Your task to perform on an android device: toggle pop-ups in chrome Image 0: 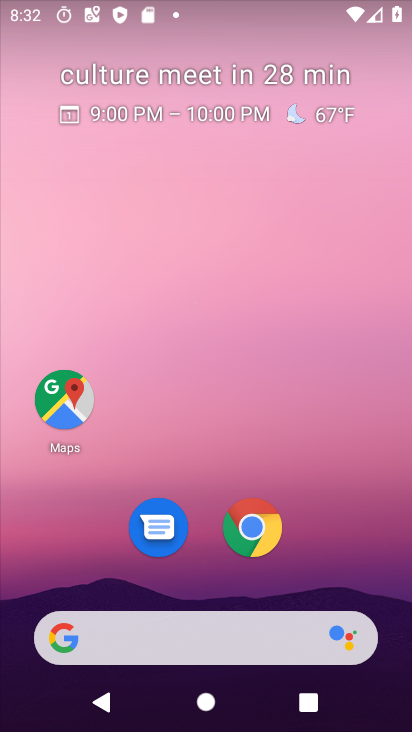
Step 0: click (252, 531)
Your task to perform on an android device: toggle pop-ups in chrome Image 1: 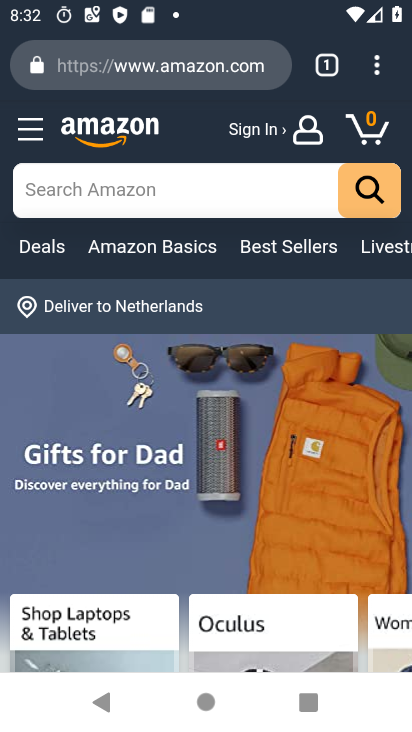
Step 1: click (379, 74)
Your task to perform on an android device: toggle pop-ups in chrome Image 2: 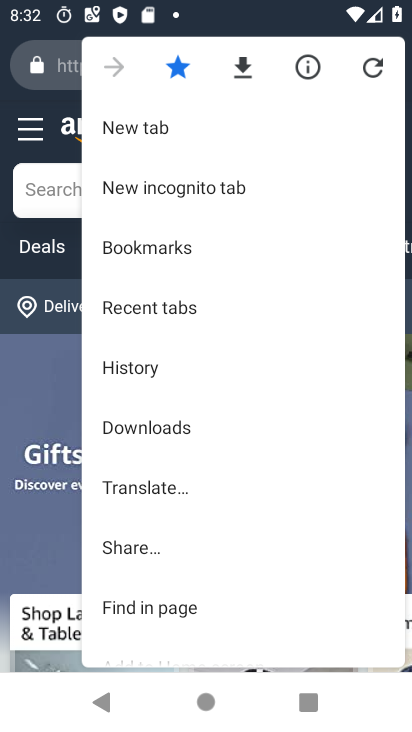
Step 2: drag from (159, 627) to (175, 274)
Your task to perform on an android device: toggle pop-ups in chrome Image 3: 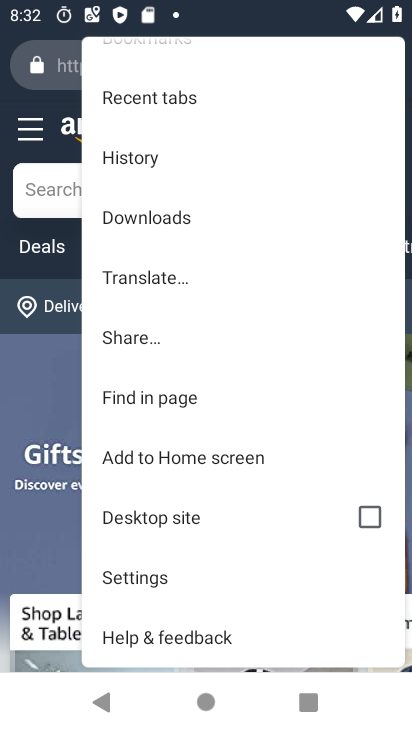
Step 3: click (137, 575)
Your task to perform on an android device: toggle pop-ups in chrome Image 4: 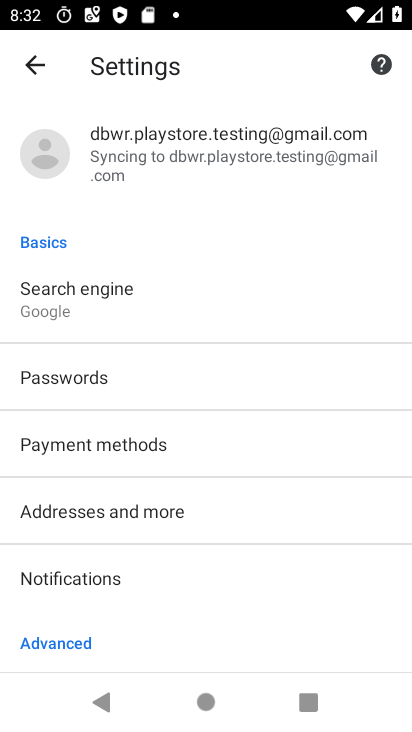
Step 4: drag from (125, 646) to (125, 243)
Your task to perform on an android device: toggle pop-ups in chrome Image 5: 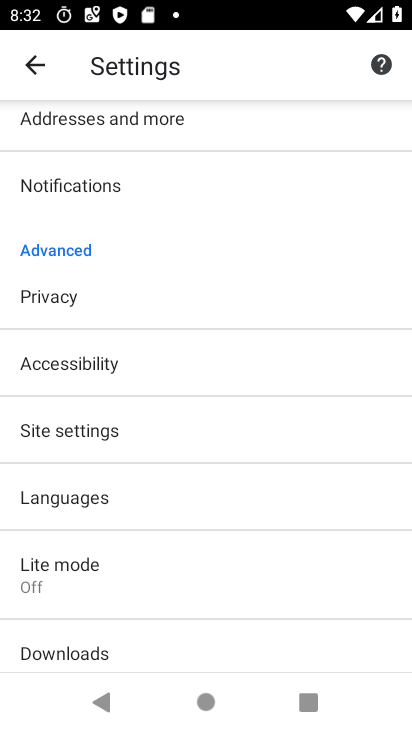
Step 5: click (71, 438)
Your task to perform on an android device: toggle pop-ups in chrome Image 6: 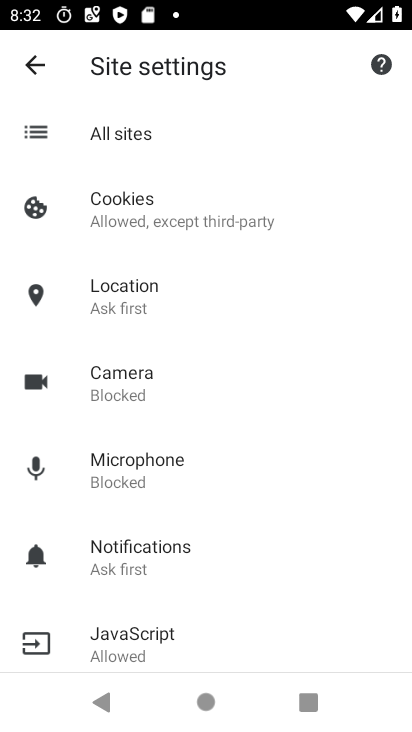
Step 6: drag from (105, 616) to (142, 245)
Your task to perform on an android device: toggle pop-ups in chrome Image 7: 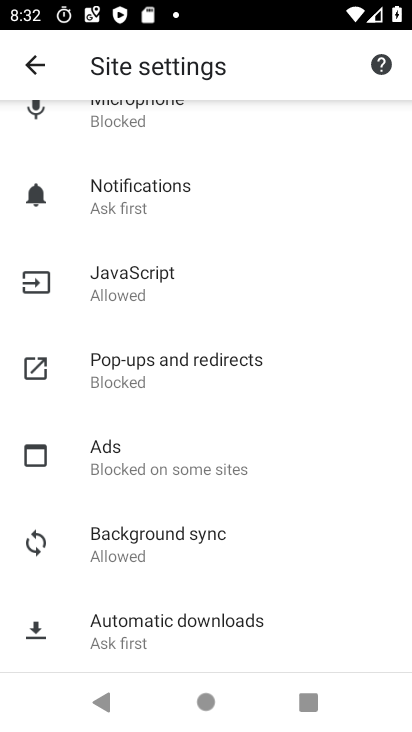
Step 7: click (128, 369)
Your task to perform on an android device: toggle pop-ups in chrome Image 8: 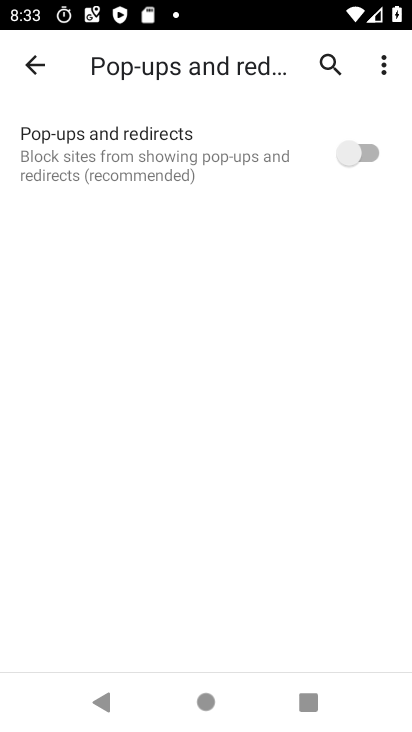
Step 8: click (371, 156)
Your task to perform on an android device: toggle pop-ups in chrome Image 9: 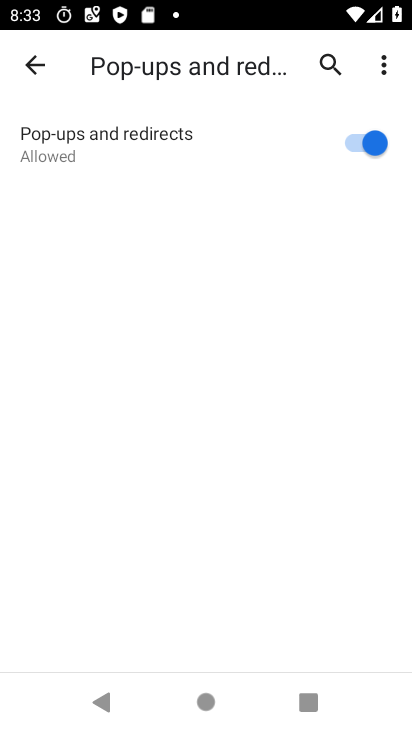
Step 9: task complete